Your task to perform on an android device: add a contact in the contacts app Image 0: 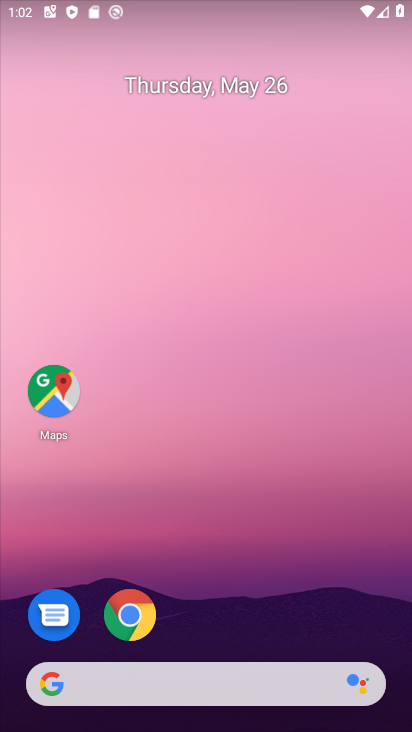
Step 0: drag from (163, 622) to (255, 224)
Your task to perform on an android device: add a contact in the contacts app Image 1: 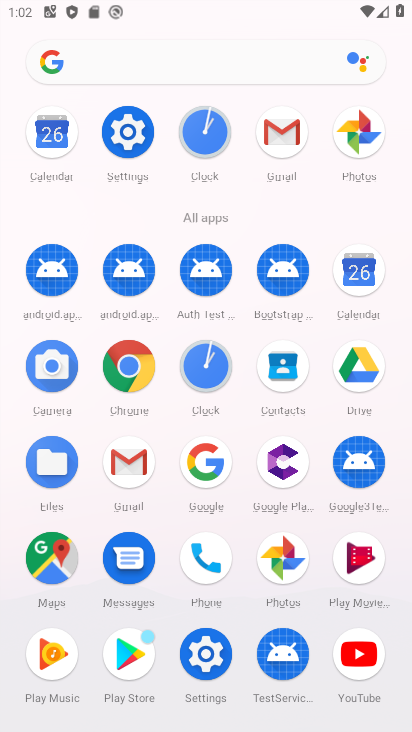
Step 1: click (275, 355)
Your task to perform on an android device: add a contact in the contacts app Image 2: 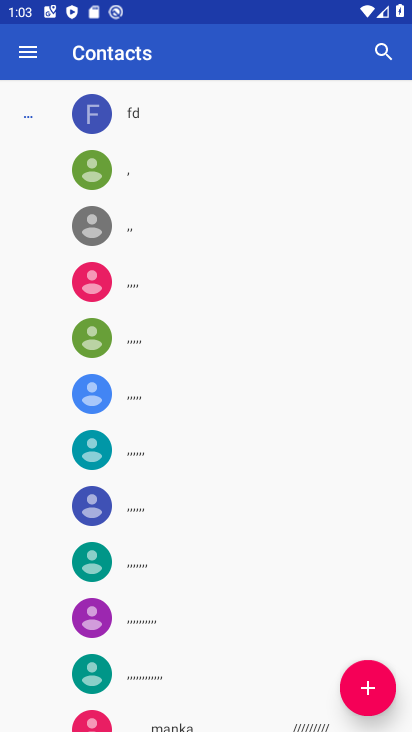
Step 2: click (367, 687)
Your task to perform on an android device: add a contact in the contacts app Image 3: 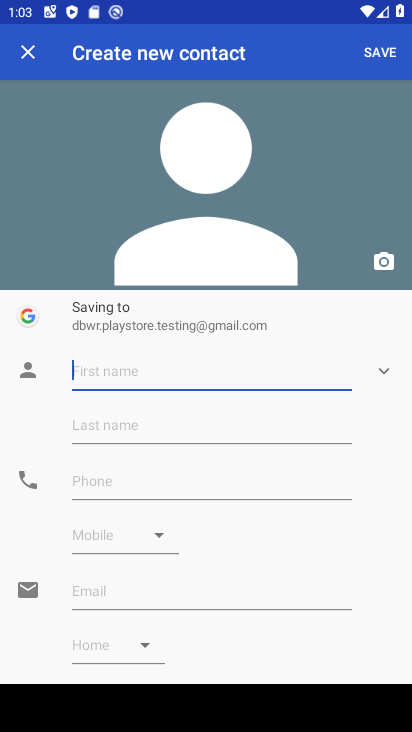
Step 3: type "gvg"
Your task to perform on an android device: add a contact in the contacts app Image 4: 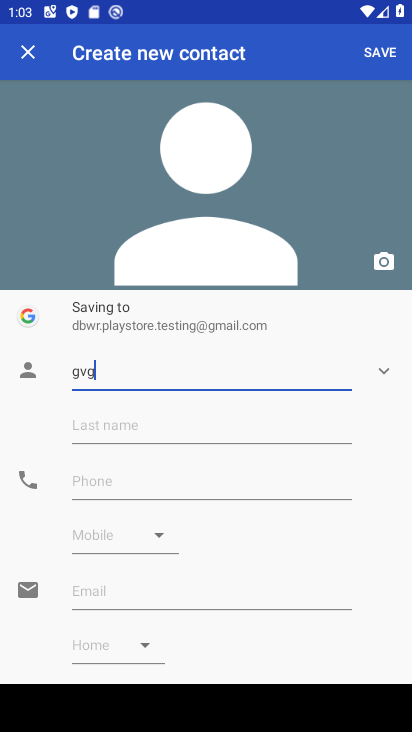
Step 4: click (125, 463)
Your task to perform on an android device: add a contact in the contacts app Image 5: 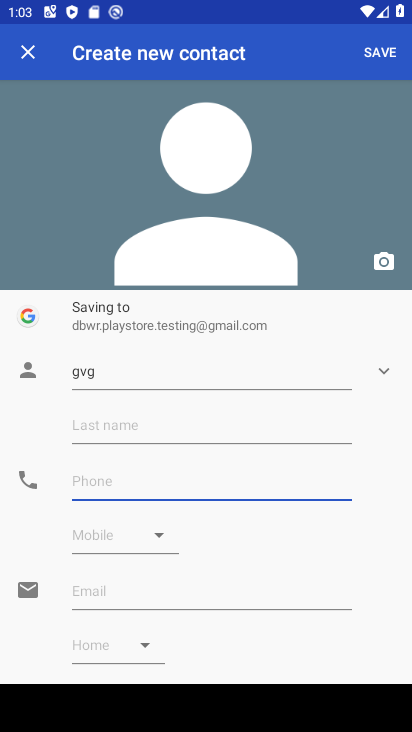
Step 5: type "7877"
Your task to perform on an android device: add a contact in the contacts app Image 6: 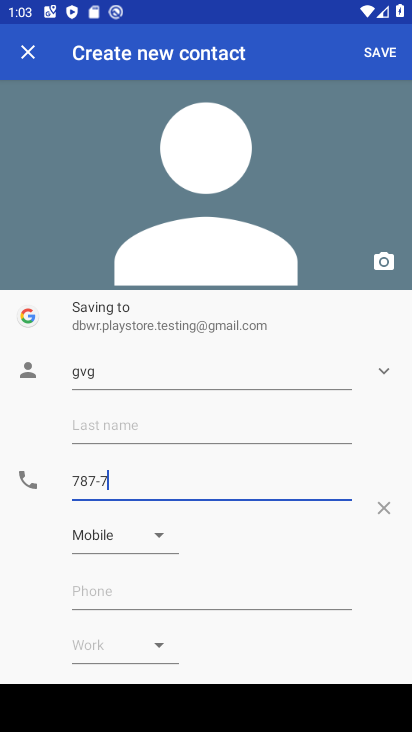
Step 6: click (381, 49)
Your task to perform on an android device: add a contact in the contacts app Image 7: 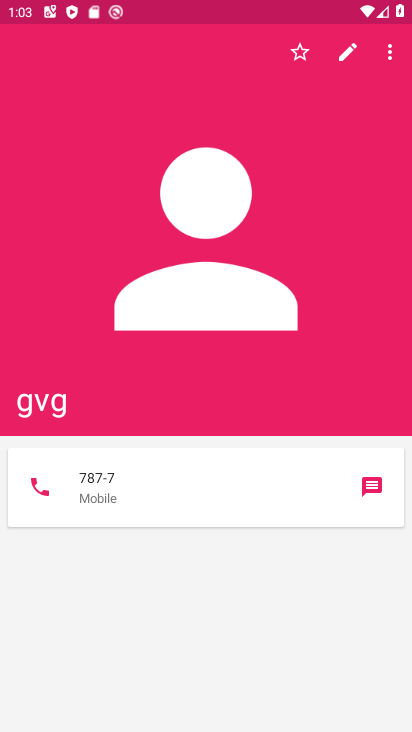
Step 7: task complete